Your task to perform on an android device: Search for pizza restaurants on Maps Image 0: 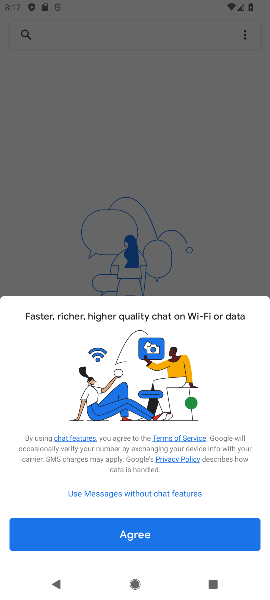
Step 0: press home button
Your task to perform on an android device: Search for pizza restaurants on Maps Image 1: 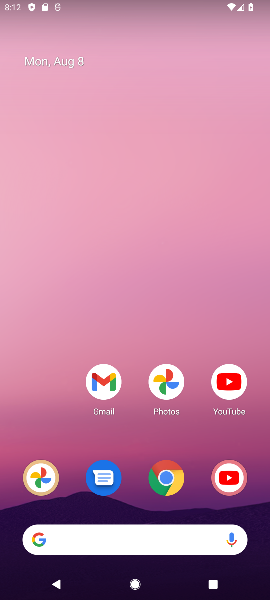
Step 1: drag from (114, 543) to (220, 244)
Your task to perform on an android device: Search for pizza restaurants on Maps Image 2: 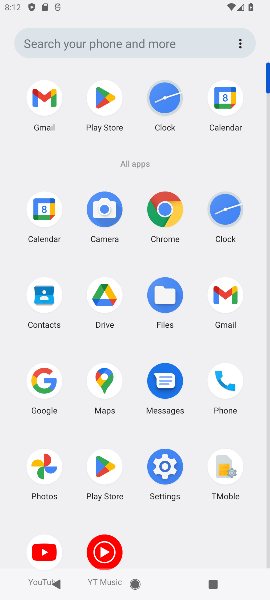
Step 2: click (102, 378)
Your task to perform on an android device: Search for pizza restaurants on Maps Image 3: 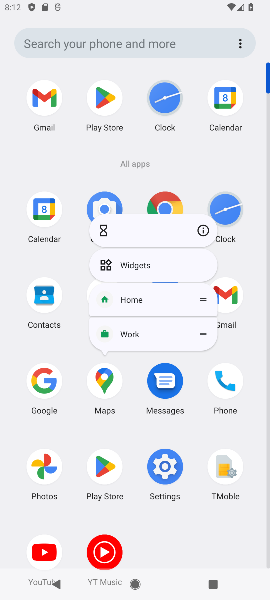
Step 3: click (102, 378)
Your task to perform on an android device: Search for pizza restaurants on Maps Image 4: 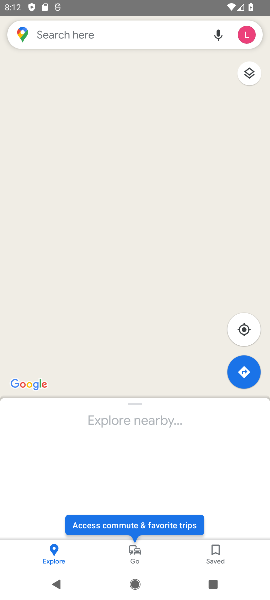
Step 4: click (82, 36)
Your task to perform on an android device: Search for pizza restaurants on Maps Image 5: 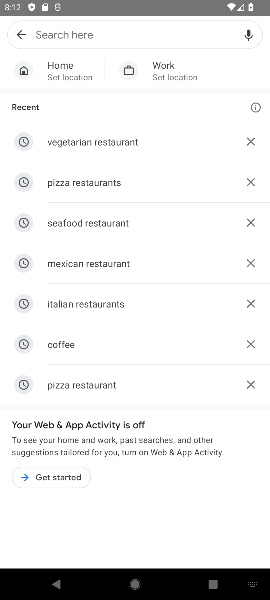
Step 5: click (103, 181)
Your task to perform on an android device: Search for pizza restaurants on Maps Image 6: 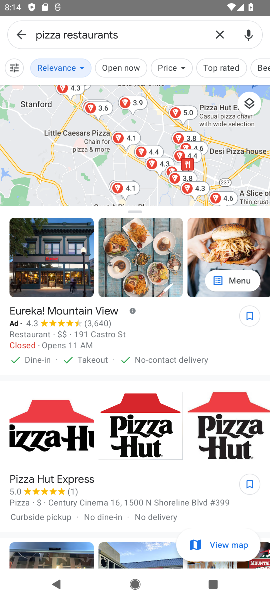
Step 6: task complete